Your task to perform on an android device: Show me the alarms in the clock app Image 0: 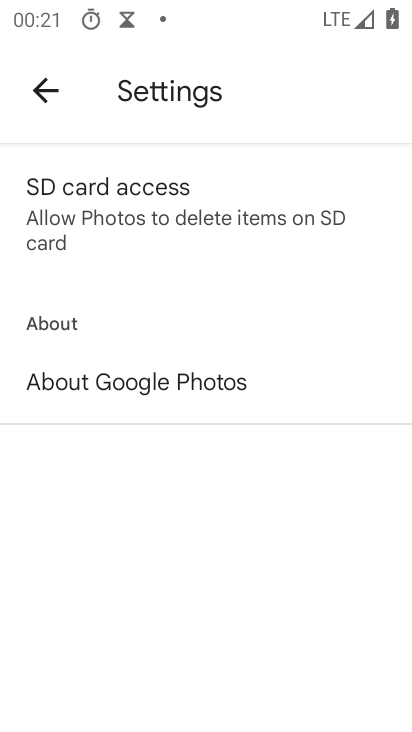
Step 0: press home button
Your task to perform on an android device: Show me the alarms in the clock app Image 1: 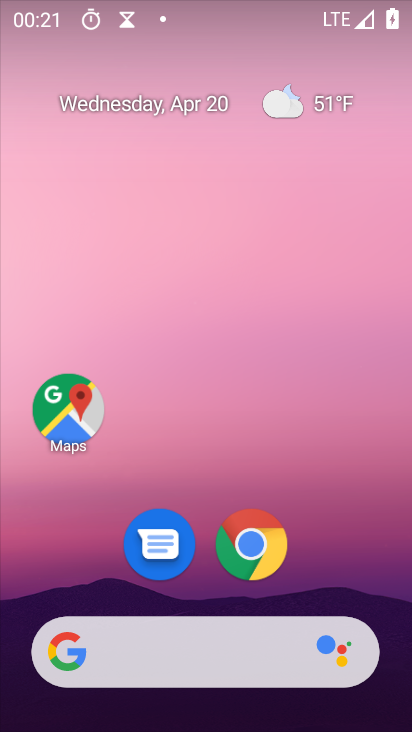
Step 1: drag from (318, 589) to (284, 191)
Your task to perform on an android device: Show me the alarms in the clock app Image 2: 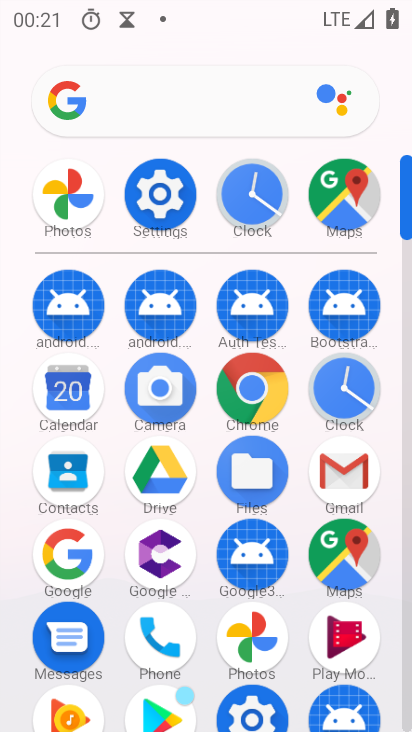
Step 2: click (333, 388)
Your task to perform on an android device: Show me the alarms in the clock app Image 3: 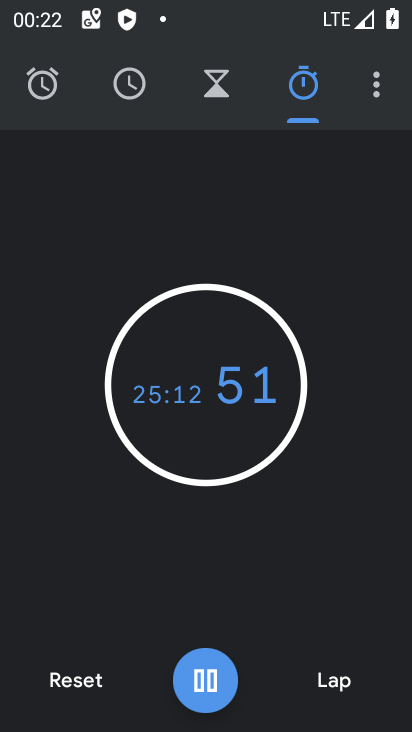
Step 3: click (35, 96)
Your task to perform on an android device: Show me the alarms in the clock app Image 4: 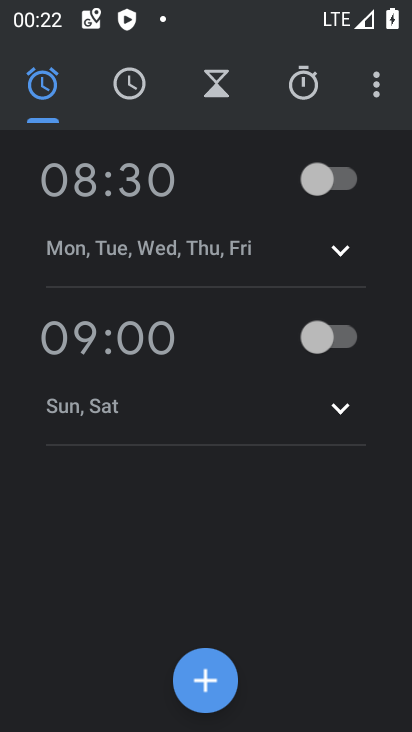
Step 4: task complete